Your task to perform on an android device: toggle notifications settings in the gmail app Image 0: 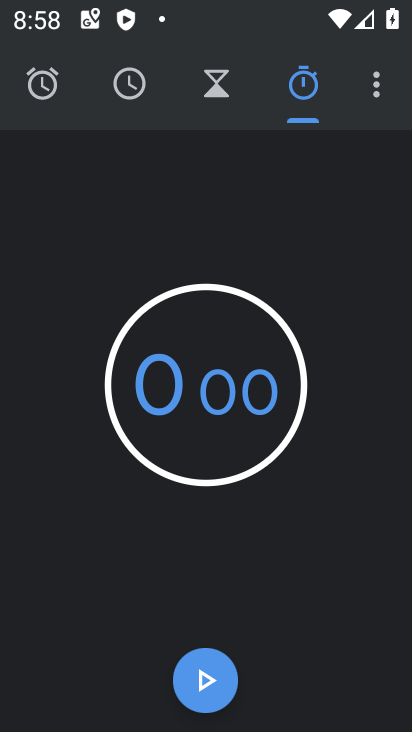
Step 0: press home button
Your task to perform on an android device: toggle notifications settings in the gmail app Image 1: 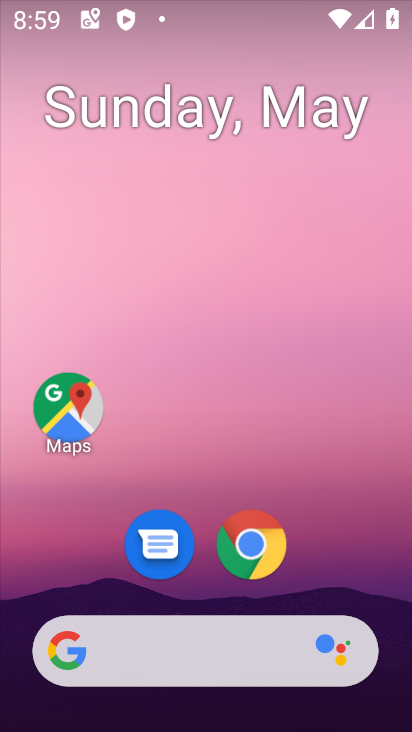
Step 1: drag from (358, 539) to (337, 0)
Your task to perform on an android device: toggle notifications settings in the gmail app Image 2: 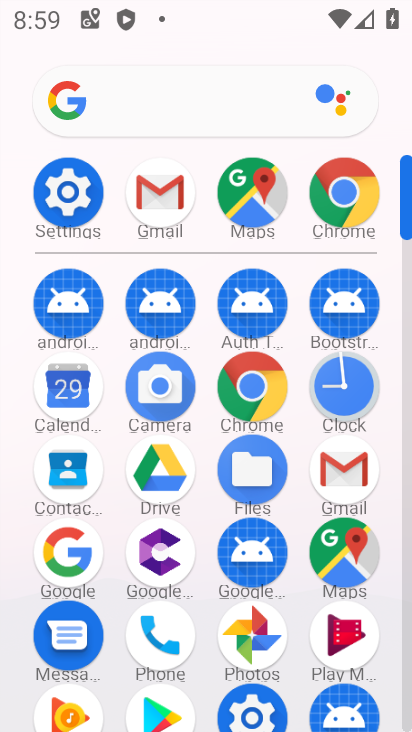
Step 2: click (157, 173)
Your task to perform on an android device: toggle notifications settings in the gmail app Image 3: 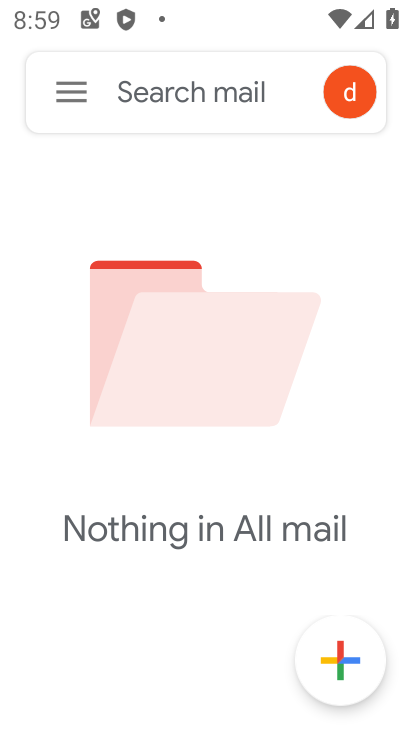
Step 3: click (53, 109)
Your task to perform on an android device: toggle notifications settings in the gmail app Image 4: 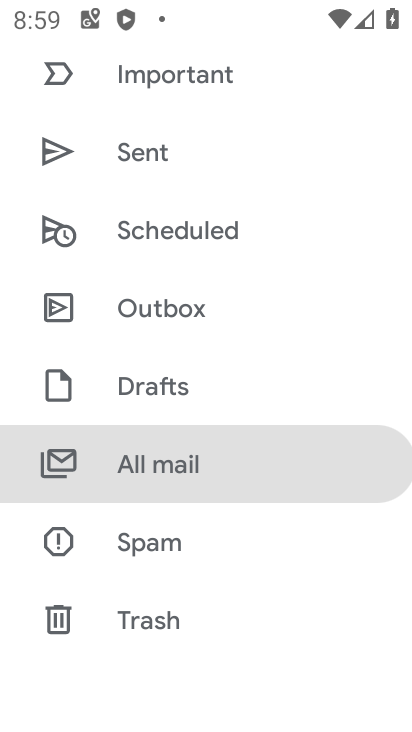
Step 4: drag from (186, 579) to (271, 220)
Your task to perform on an android device: toggle notifications settings in the gmail app Image 5: 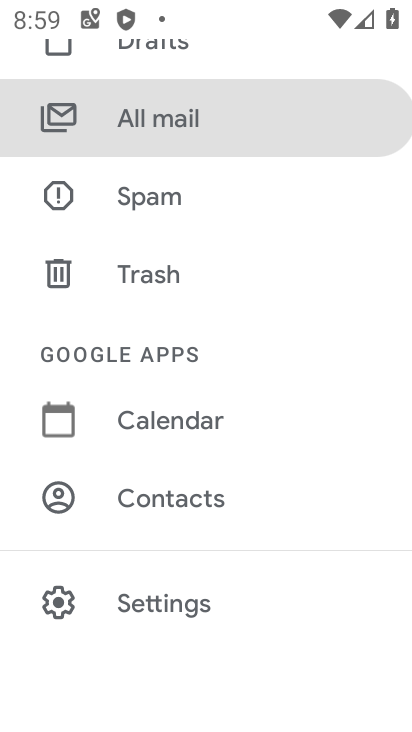
Step 5: click (180, 598)
Your task to perform on an android device: toggle notifications settings in the gmail app Image 6: 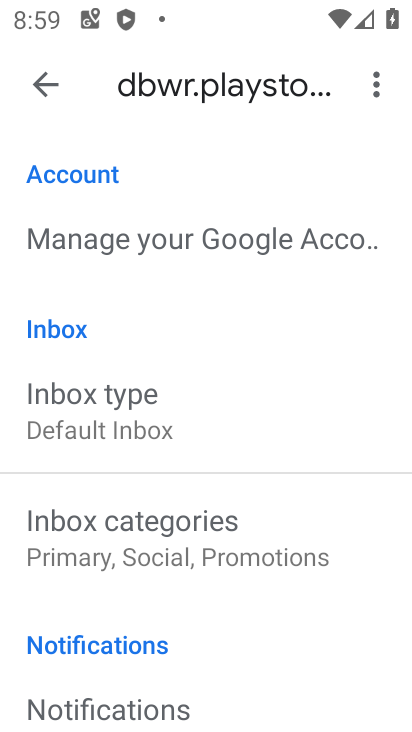
Step 6: drag from (120, 628) to (137, 283)
Your task to perform on an android device: toggle notifications settings in the gmail app Image 7: 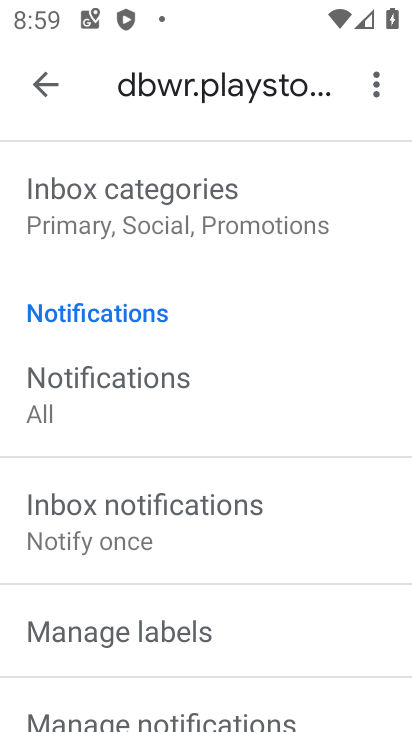
Step 7: click (123, 351)
Your task to perform on an android device: toggle notifications settings in the gmail app Image 8: 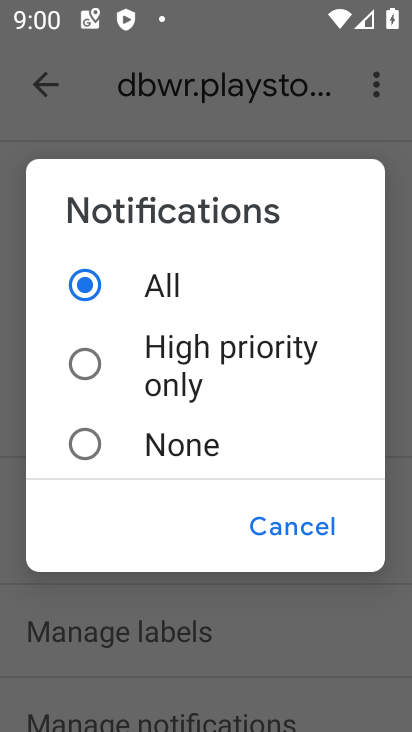
Step 8: click (105, 372)
Your task to perform on an android device: toggle notifications settings in the gmail app Image 9: 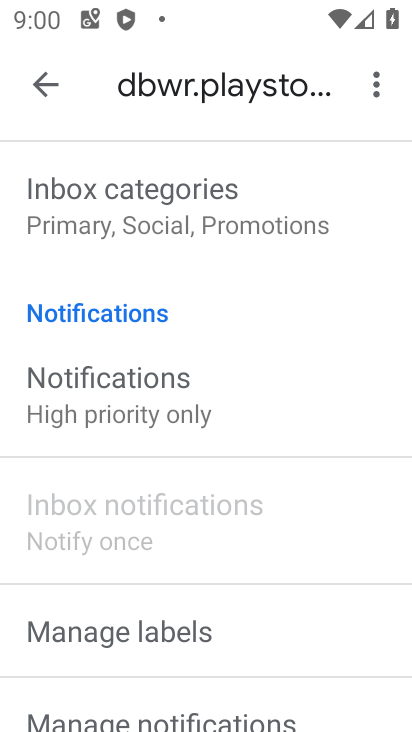
Step 9: task complete